Your task to perform on an android device: turn notification dots off Image 0: 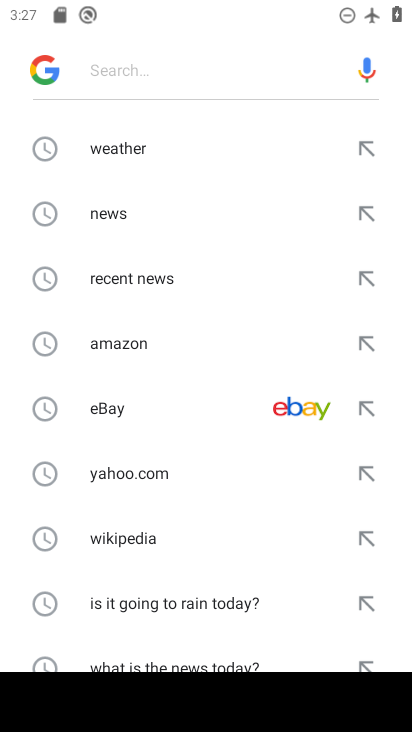
Step 0: press home button
Your task to perform on an android device: turn notification dots off Image 1: 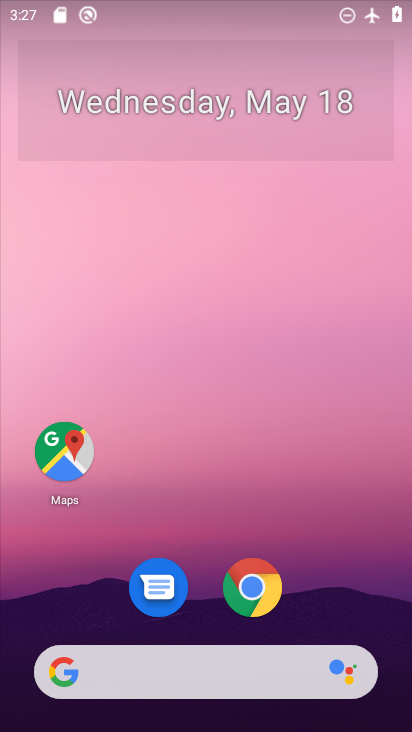
Step 1: drag from (277, 9) to (313, 547)
Your task to perform on an android device: turn notification dots off Image 2: 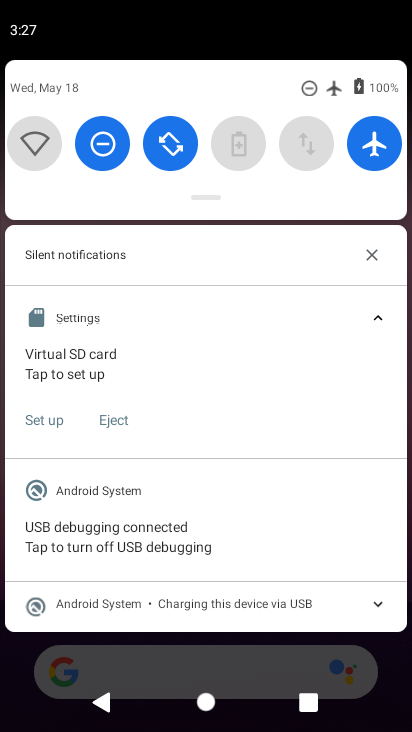
Step 2: click (361, 140)
Your task to perform on an android device: turn notification dots off Image 3: 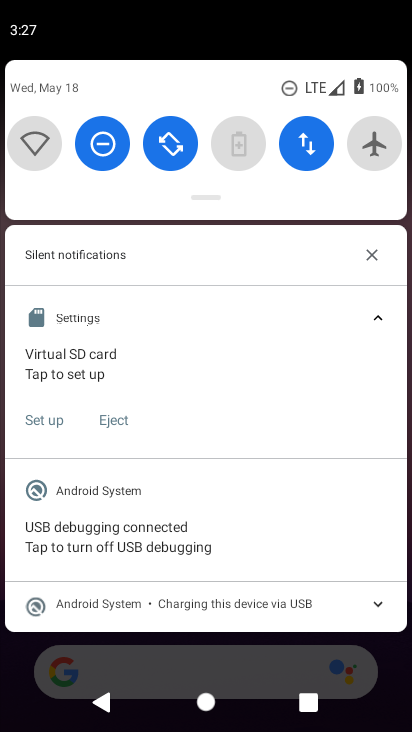
Step 3: drag from (207, 589) to (16, 224)
Your task to perform on an android device: turn notification dots off Image 4: 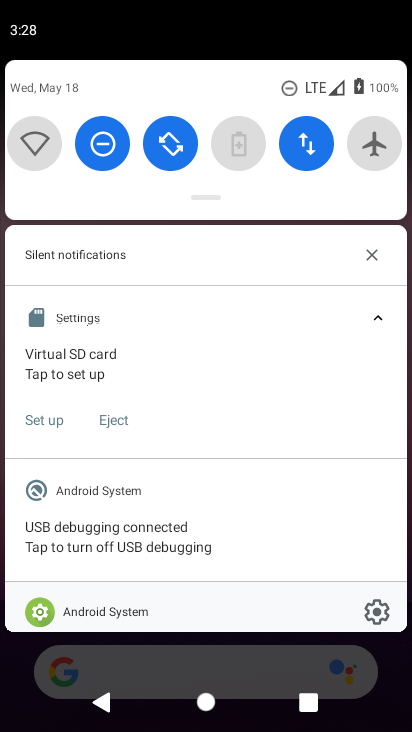
Step 4: press back button
Your task to perform on an android device: turn notification dots off Image 5: 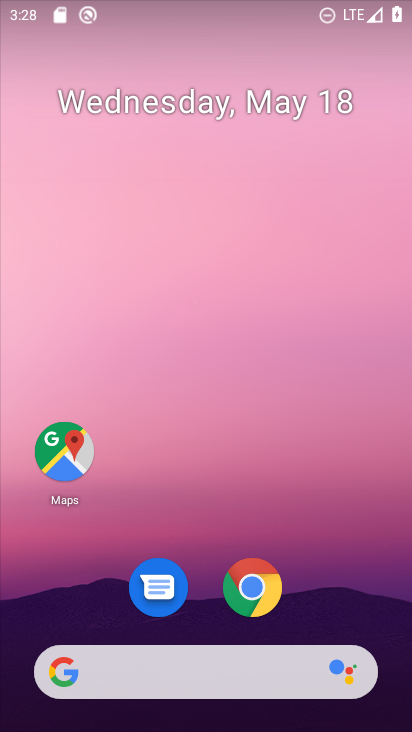
Step 5: drag from (238, 683) to (178, 3)
Your task to perform on an android device: turn notification dots off Image 6: 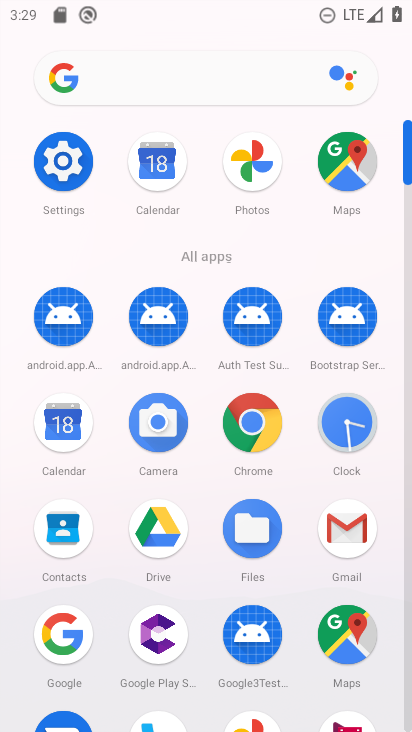
Step 6: click (72, 140)
Your task to perform on an android device: turn notification dots off Image 7: 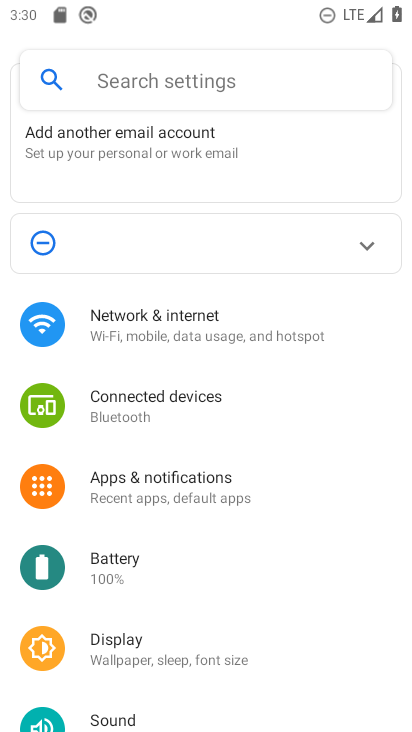
Step 7: click (150, 504)
Your task to perform on an android device: turn notification dots off Image 8: 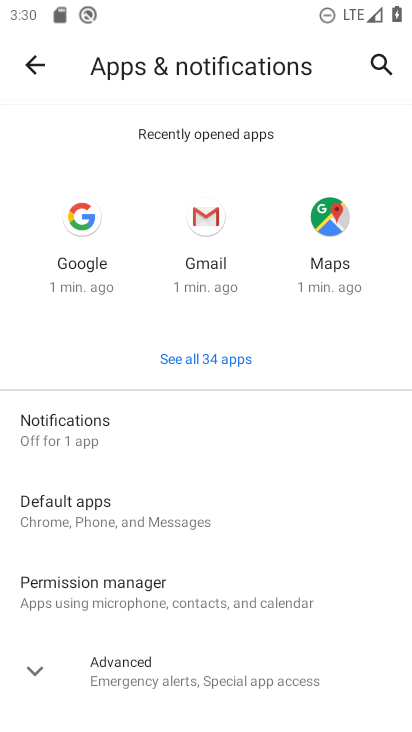
Step 8: click (100, 433)
Your task to perform on an android device: turn notification dots off Image 9: 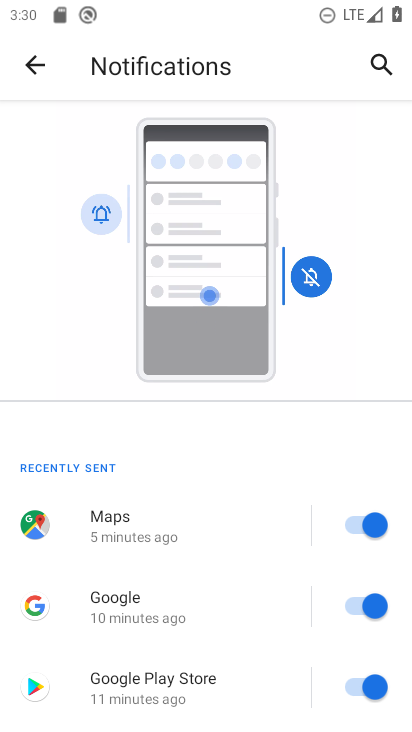
Step 9: drag from (192, 501) to (192, 84)
Your task to perform on an android device: turn notification dots off Image 10: 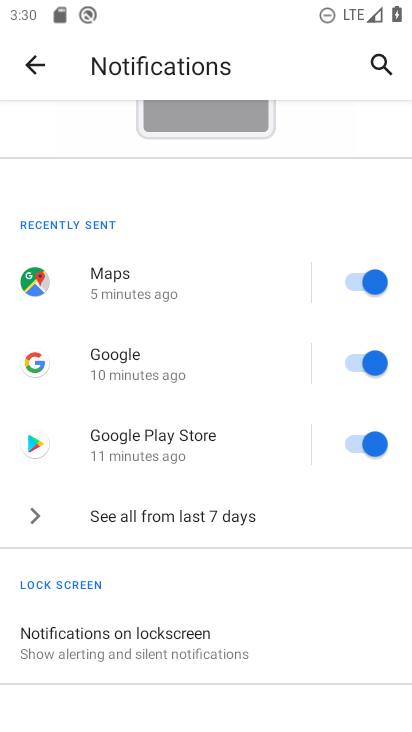
Step 10: drag from (195, 646) to (181, 187)
Your task to perform on an android device: turn notification dots off Image 11: 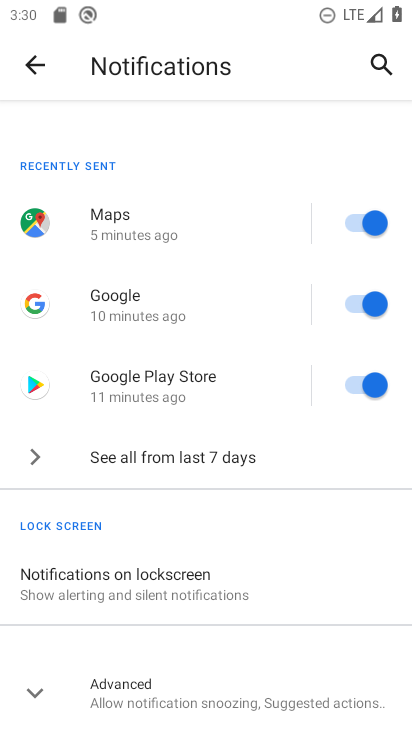
Step 11: click (153, 704)
Your task to perform on an android device: turn notification dots off Image 12: 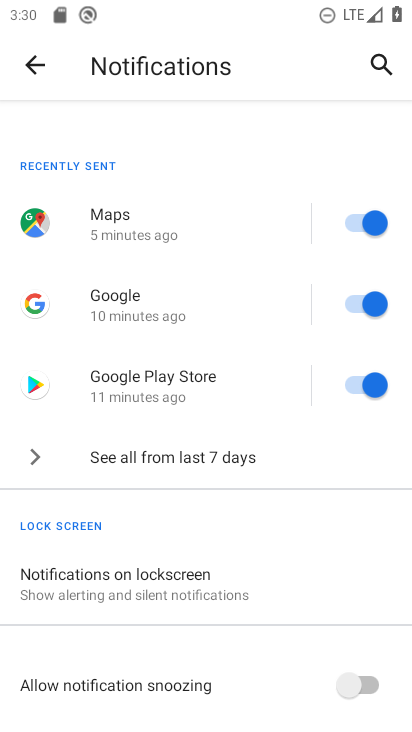
Step 12: drag from (183, 655) to (28, 303)
Your task to perform on an android device: turn notification dots off Image 13: 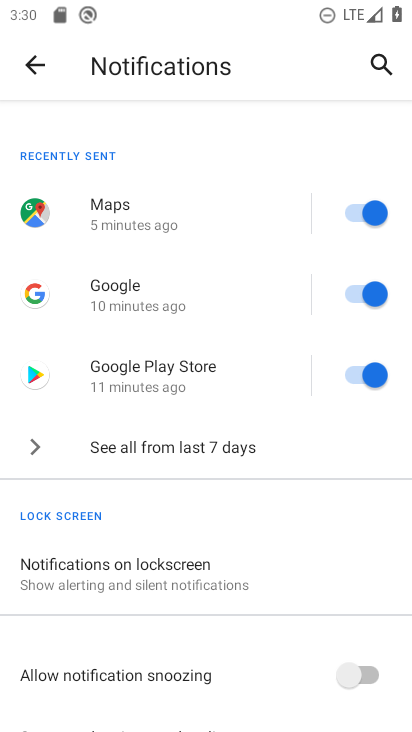
Step 13: drag from (245, 638) to (243, 24)
Your task to perform on an android device: turn notification dots off Image 14: 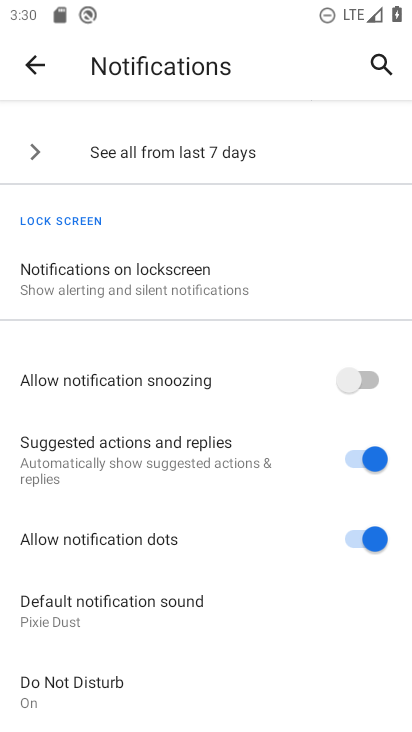
Step 14: click (361, 542)
Your task to perform on an android device: turn notification dots off Image 15: 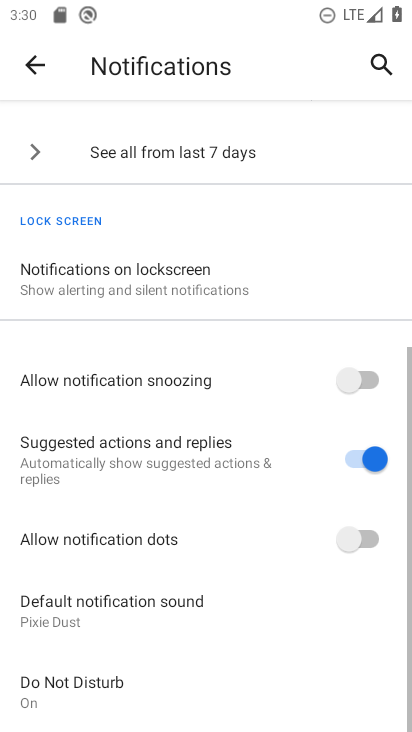
Step 15: task complete